Your task to perform on an android device: Open internet settings Image 0: 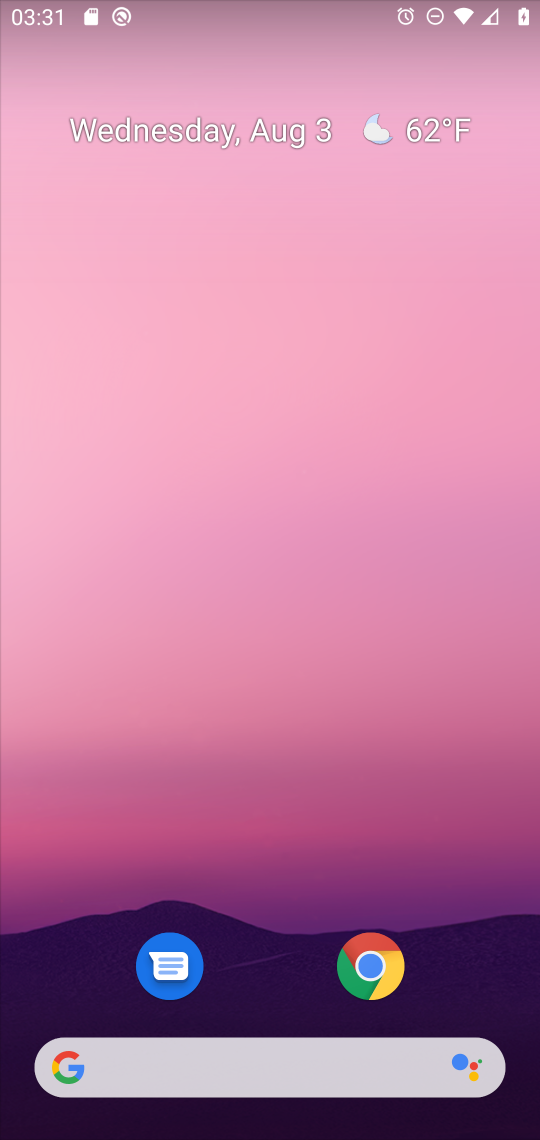
Step 0: drag from (285, 969) to (281, 466)
Your task to perform on an android device: Open internet settings Image 1: 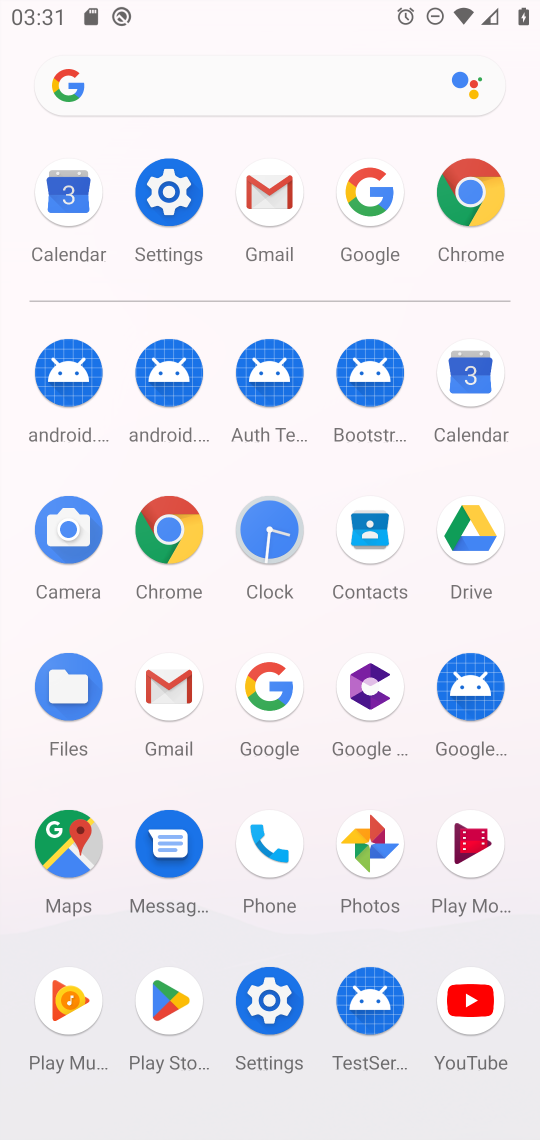
Step 1: click (184, 214)
Your task to perform on an android device: Open internet settings Image 2: 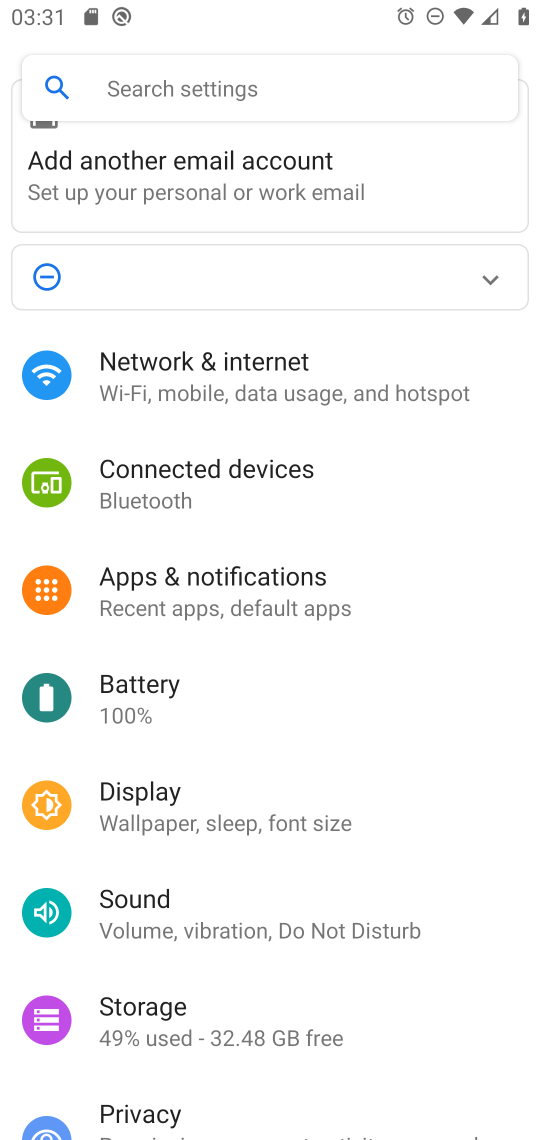
Step 2: click (227, 375)
Your task to perform on an android device: Open internet settings Image 3: 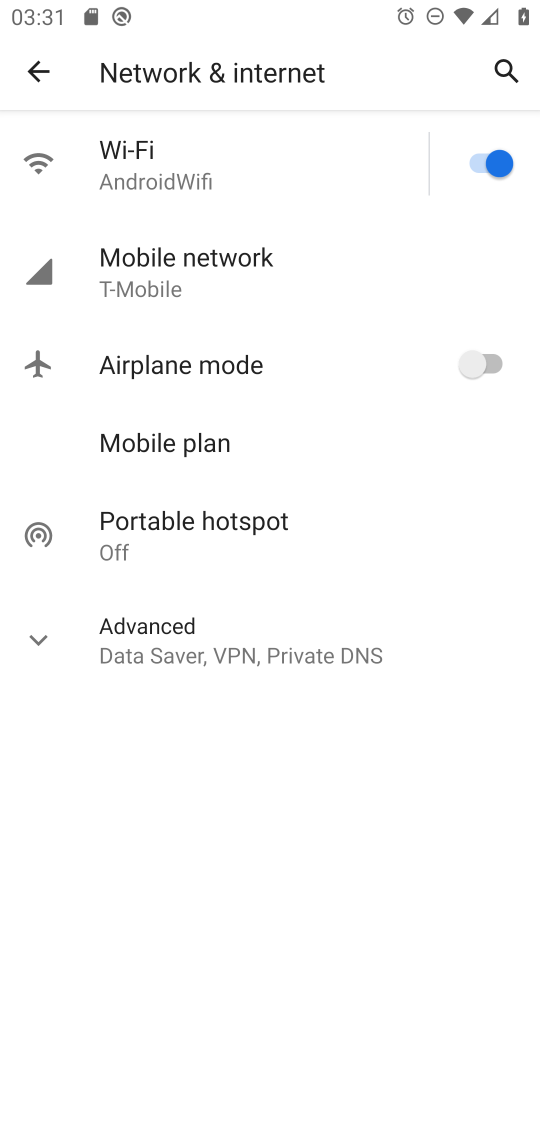
Step 3: task complete